Your task to perform on an android device: Open internet settings Image 0: 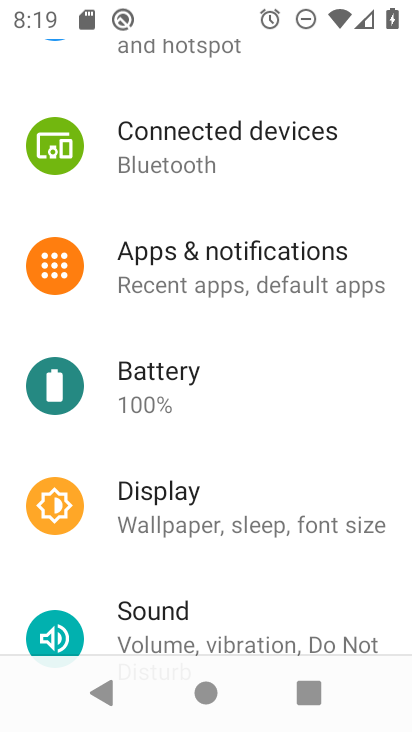
Step 0: drag from (363, 474) to (356, 343)
Your task to perform on an android device: Open internet settings Image 1: 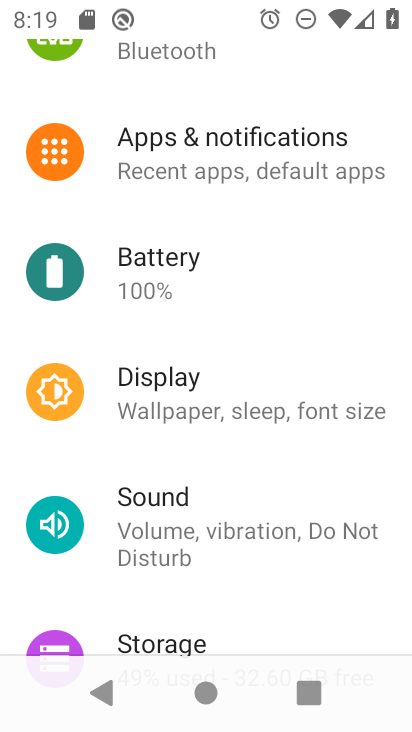
Step 1: drag from (325, 547) to (344, 336)
Your task to perform on an android device: Open internet settings Image 2: 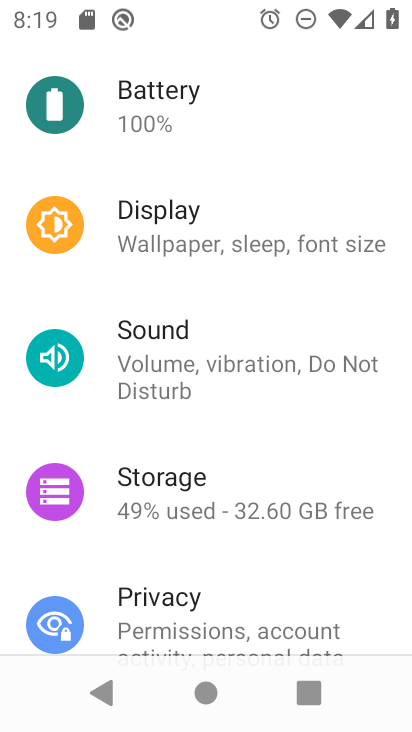
Step 2: drag from (352, 458) to (367, 295)
Your task to perform on an android device: Open internet settings Image 3: 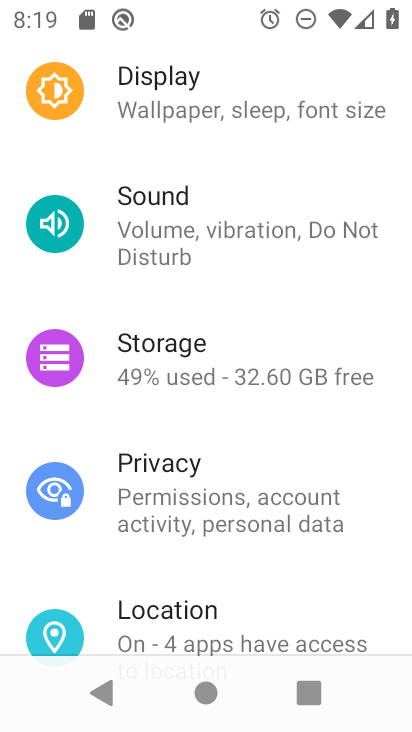
Step 3: drag from (363, 580) to (365, 423)
Your task to perform on an android device: Open internet settings Image 4: 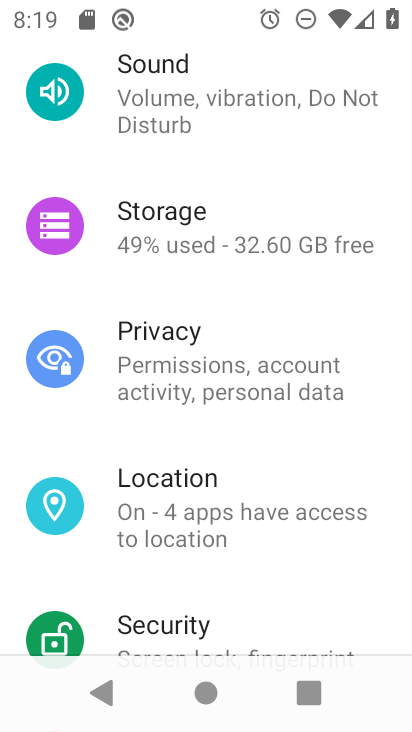
Step 4: drag from (350, 556) to (346, 434)
Your task to perform on an android device: Open internet settings Image 5: 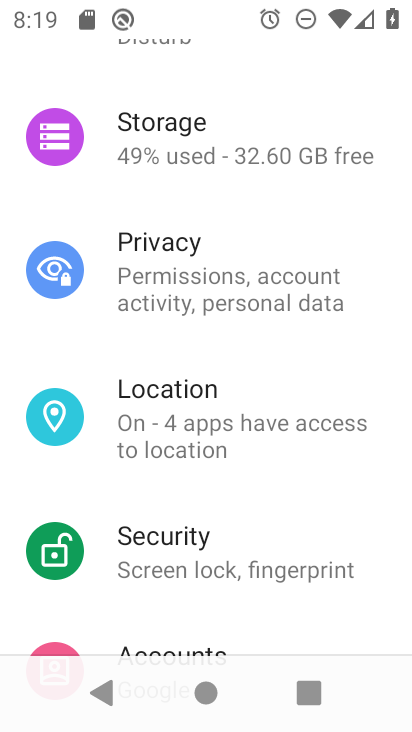
Step 5: drag from (354, 594) to (351, 415)
Your task to perform on an android device: Open internet settings Image 6: 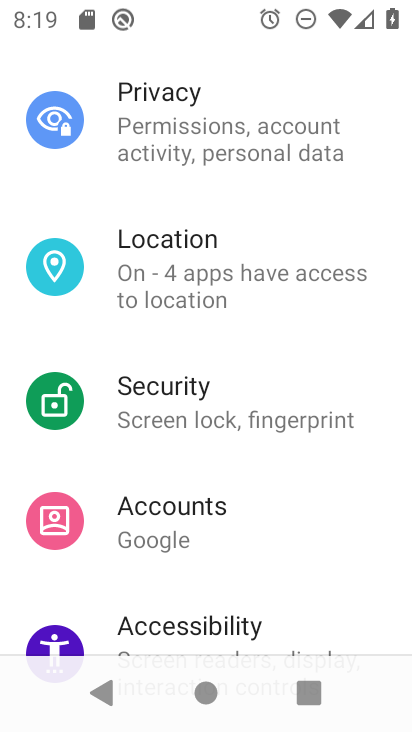
Step 6: drag from (344, 508) to (326, 386)
Your task to perform on an android device: Open internet settings Image 7: 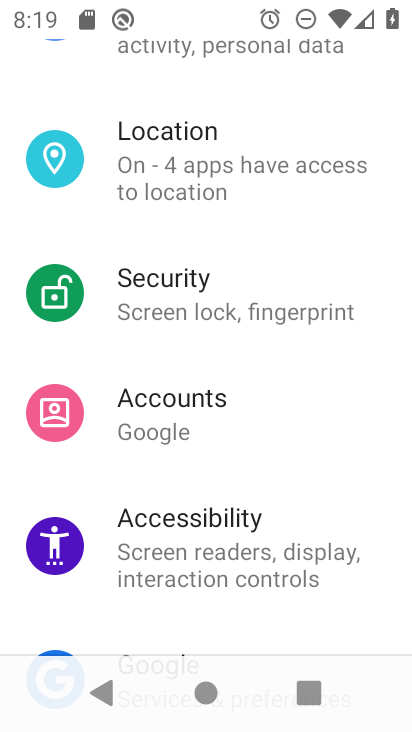
Step 7: drag from (342, 239) to (345, 367)
Your task to perform on an android device: Open internet settings Image 8: 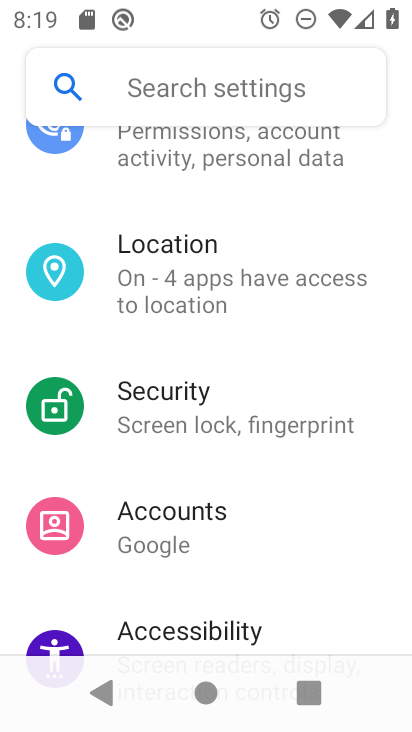
Step 8: drag from (371, 234) to (367, 348)
Your task to perform on an android device: Open internet settings Image 9: 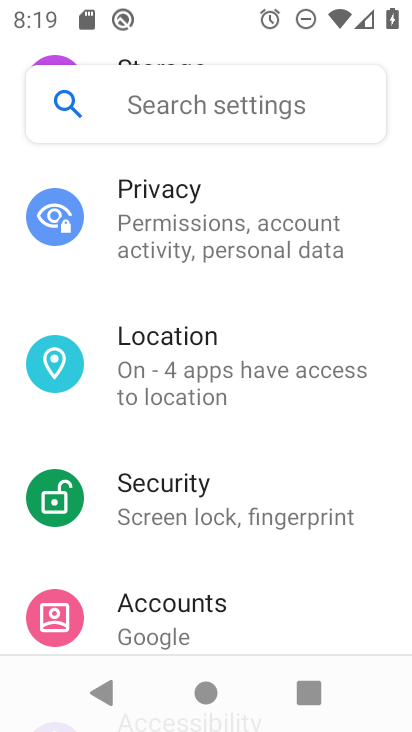
Step 9: drag from (375, 214) to (355, 344)
Your task to perform on an android device: Open internet settings Image 10: 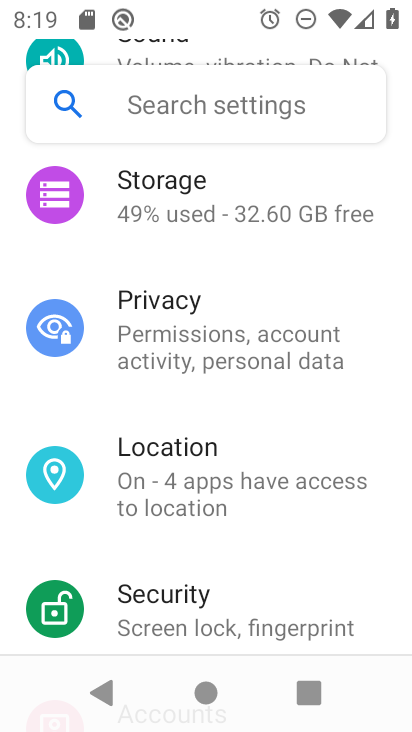
Step 10: drag from (372, 240) to (366, 386)
Your task to perform on an android device: Open internet settings Image 11: 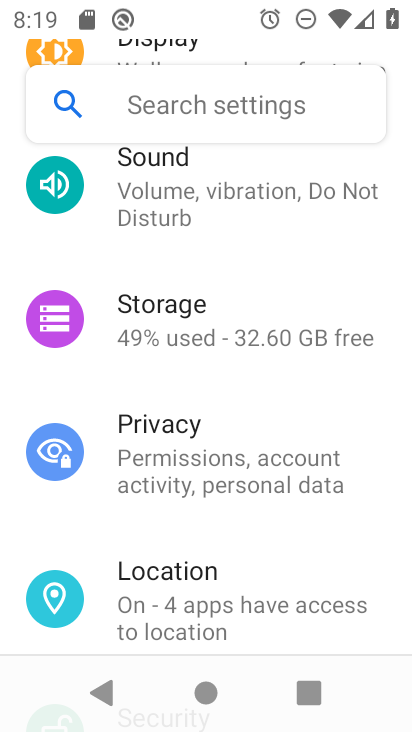
Step 11: drag from (366, 251) to (375, 422)
Your task to perform on an android device: Open internet settings Image 12: 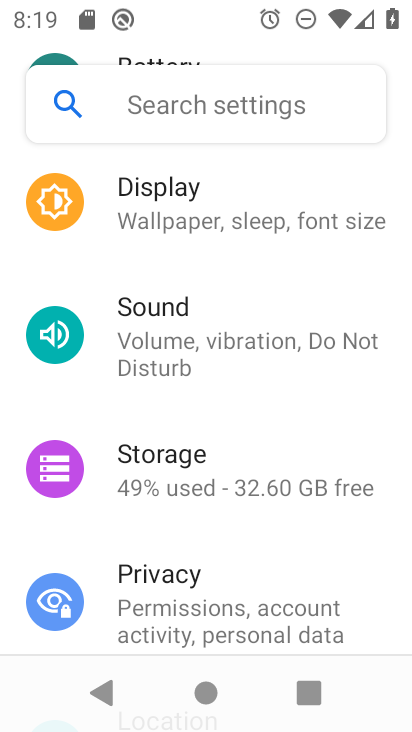
Step 12: drag from (377, 267) to (358, 416)
Your task to perform on an android device: Open internet settings Image 13: 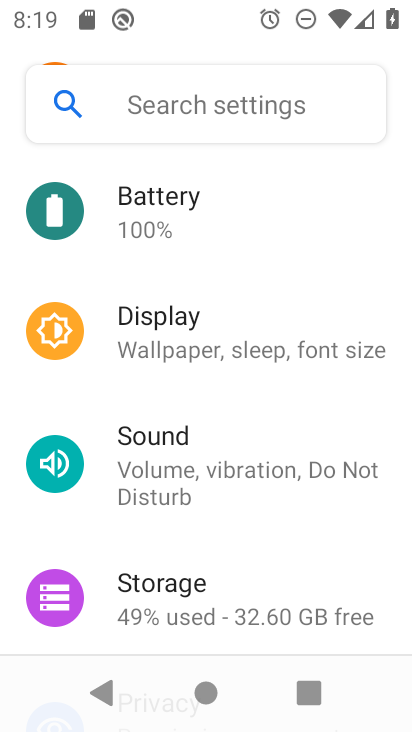
Step 13: drag from (350, 232) to (346, 365)
Your task to perform on an android device: Open internet settings Image 14: 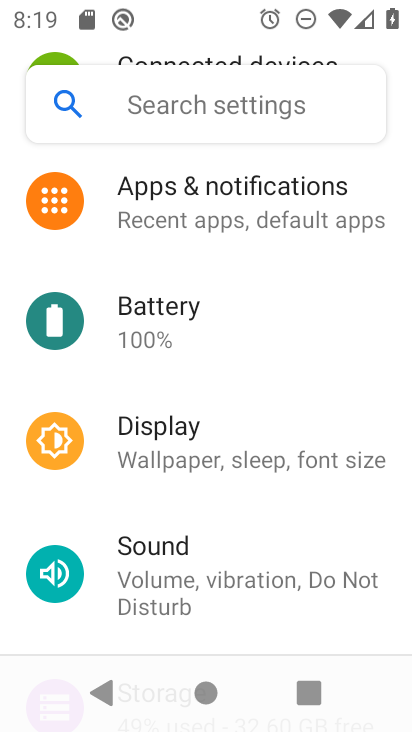
Step 14: drag from (329, 283) to (303, 437)
Your task to perform on an android device: Open internet settings Image 15: 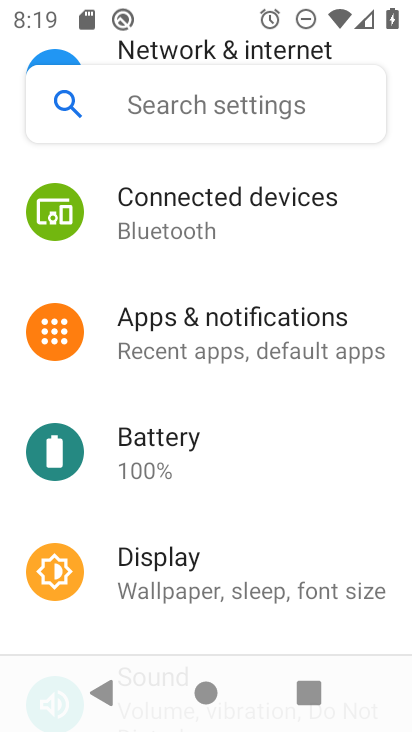
Step 15: drag from (364, 192) to (363, 395)
Your task to perform on an android device: Open internet settings Image 16: 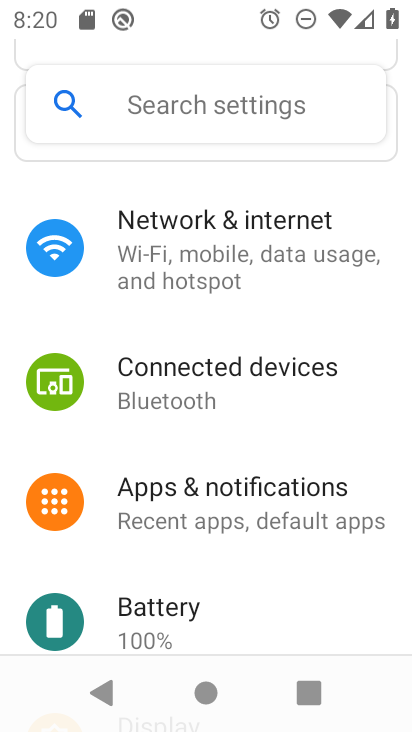
Step 16: click (263, 250)
Your task to perform on an android device: Open internet settings Image 17: 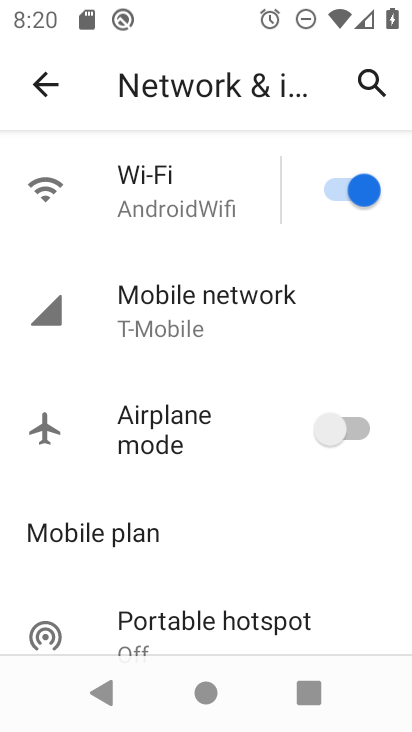
Step 17: task complete